Your task to perform on an android device: turn on notifications settings in the gmail app Image 0: 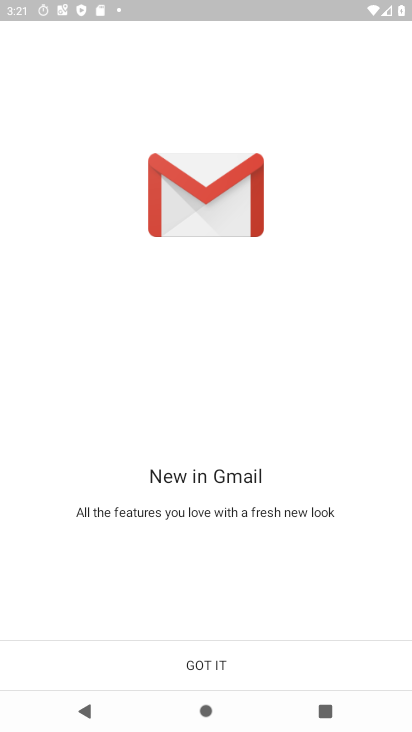
Step 0: click (203, 670)
Your task to perform on an android device: turn on notifications settings in the gmail app Image 1: 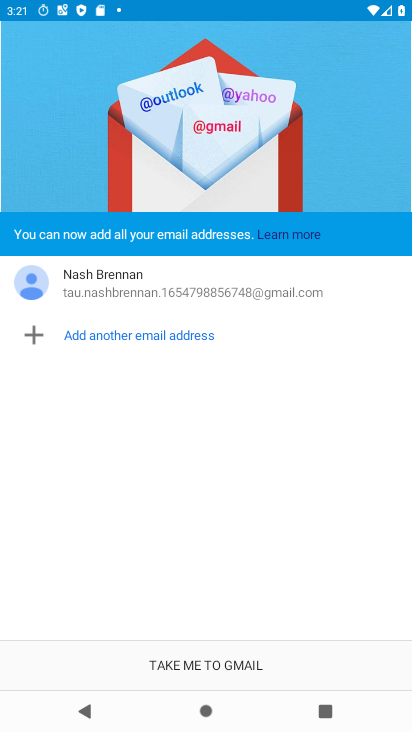
Step 1: click (203, 670)
Your task to perform on an android device: turn on notifications settings in the gmail app Image 2: 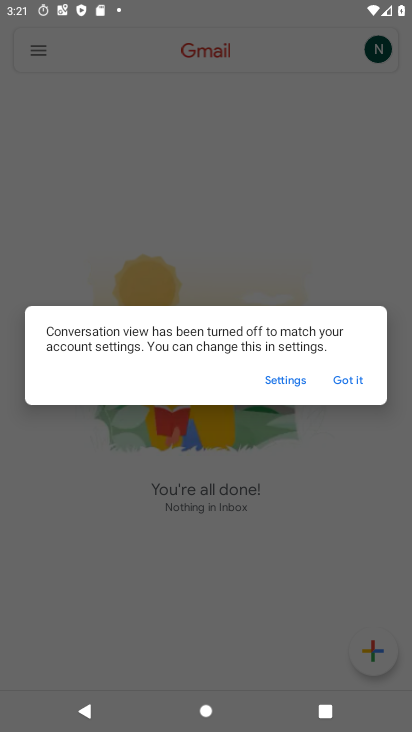
Step 2: click (349, 381)
Your task to perform on an android device: turn on notifications settings in the gmail app Image 3: 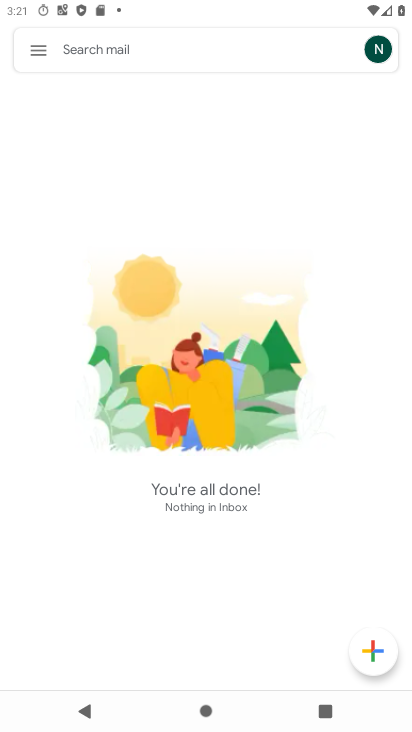
Step 3: click (37, 49)
Your task to perform on an android device: turn on notifications settings in the gmail app Image 4: 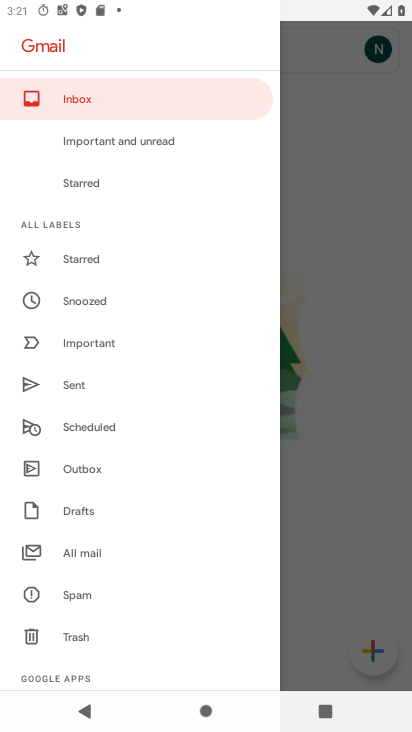
Step 4: drag from (74, 585) to (180, 435)
Your task to perform on an android device: turn on notifications settings in the gmail app Image 5: 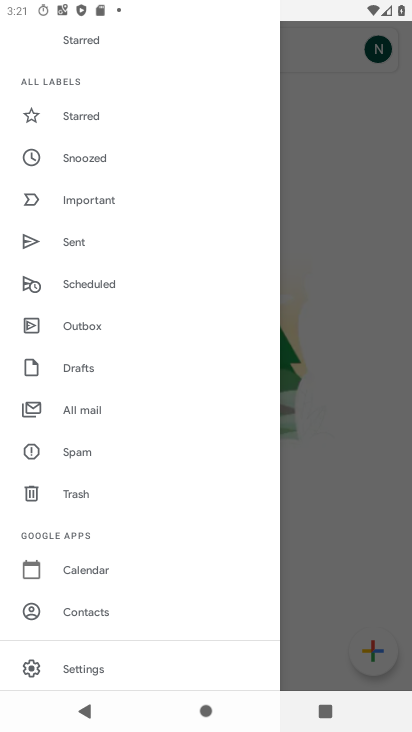
Step 5: drag from (124, 613) to (196, 461)
Your task to perform on an android device: turn on notifications settings in the gmail app Image 6: 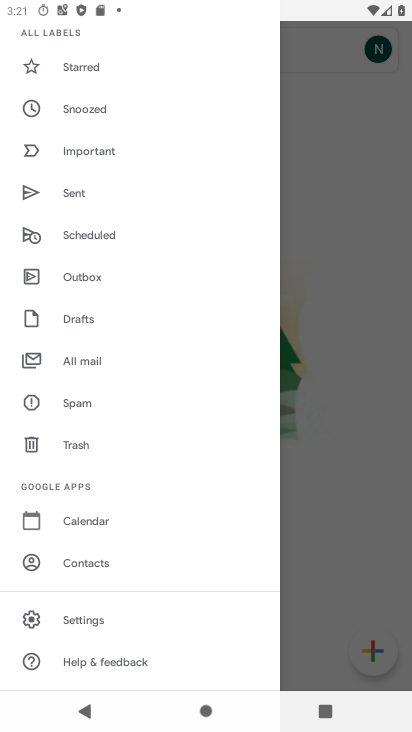
Step 6: click (103, 620)
Your task to perform on an android device: turn on notifications settings in the gmail app Image 7: 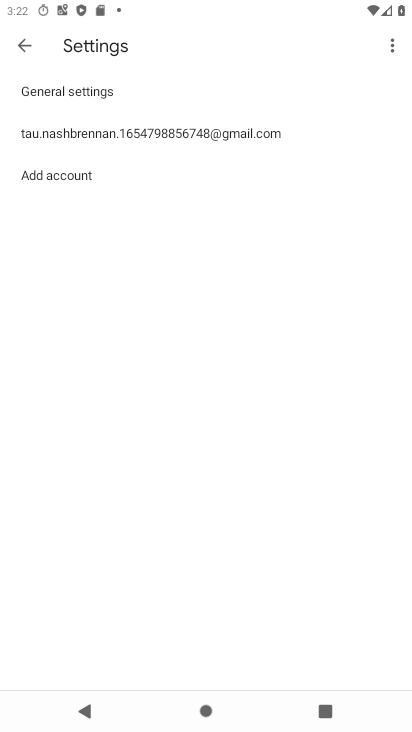
Step 7: click (155, 136)
Your task to perform on an android device: turn on notifications settings in the gmail app Image 8: 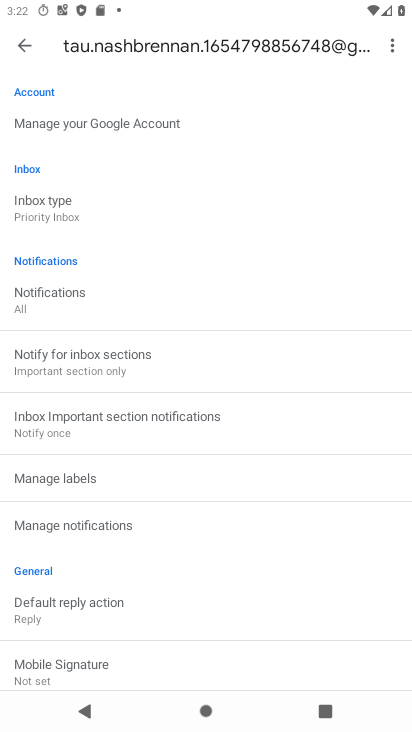
Step 8: click (65, 530)
Your task to perform on an android device: turn on notifications settings in the gmail app Image 9: 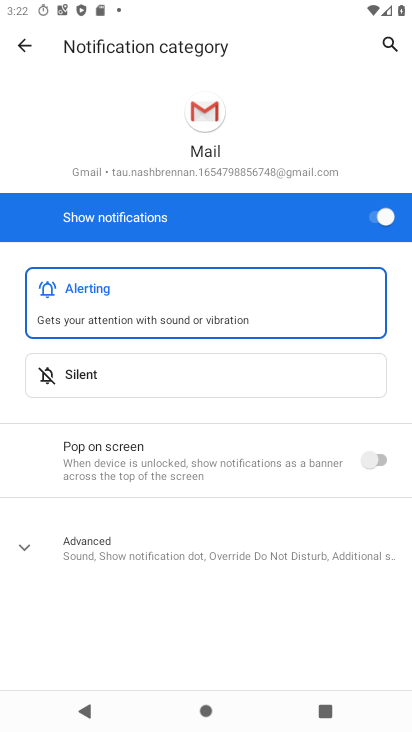
Step 9: task complete